Your task to perform on an android device: Set the phone to "Do not disturb". Image 0: 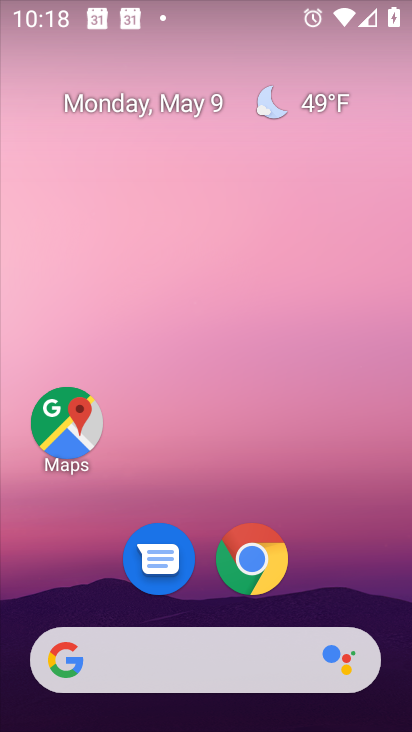
Step 0: drag from (197, 715) to (205, 185)
Your task to perform on an android device: Set the phone to "Do not disturb". Image 1: 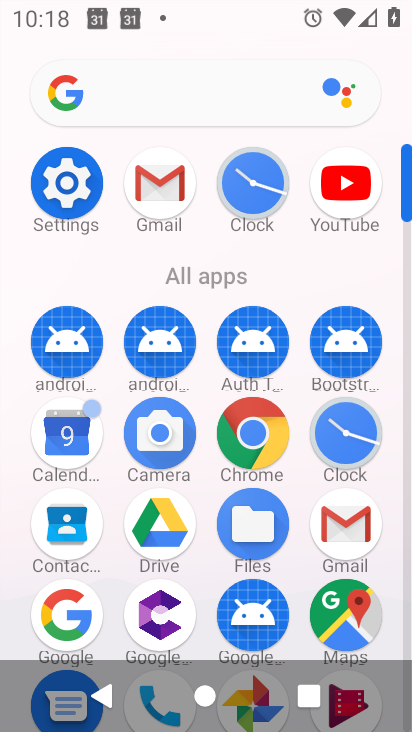
Step 1: click (79, 184)
Your task to perform on an android device: Set the phone to "Do not disturb". Image 2: 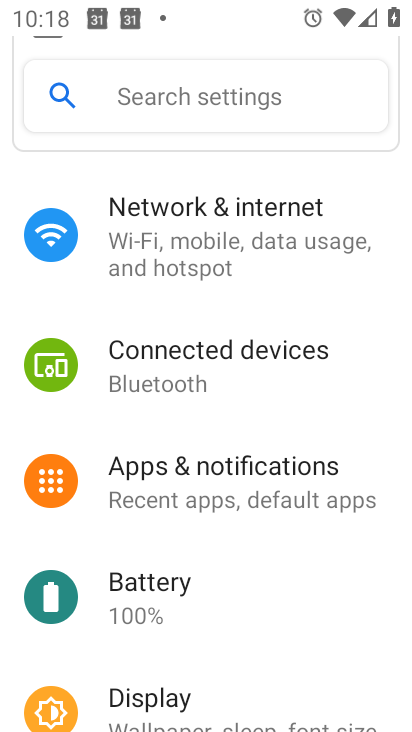
Step 2: drag from (205, 647) to (201, 214)
Your task to perform on an android device: Set the phone to "Do not disturb". Image 3: 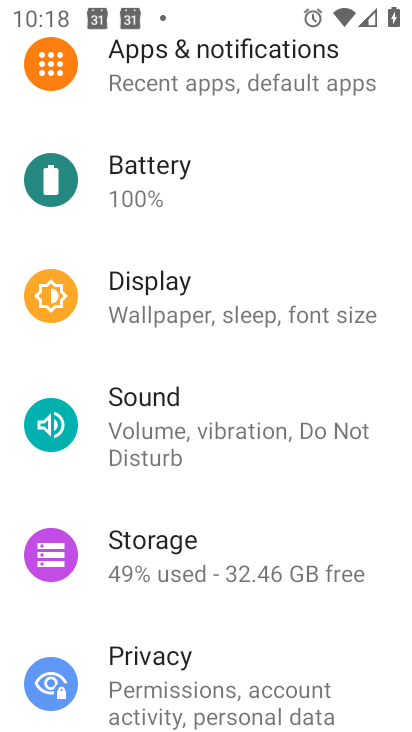
Step 3: click (225, 424)
Your task to perform on an android device: Set the phone to "Do not disturb". Image 4: 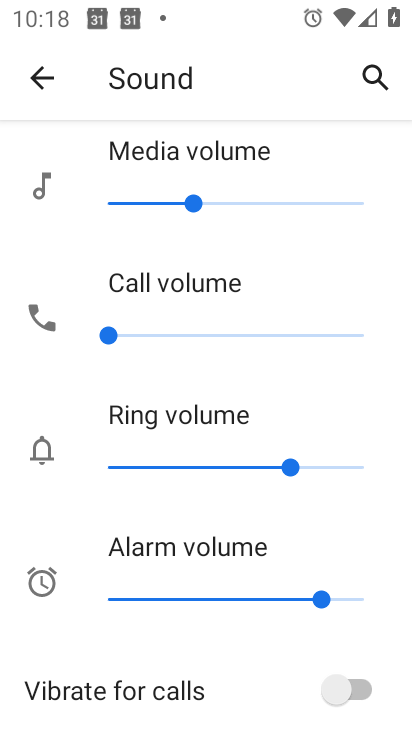
Step 4: drag from (215, 680) to (215, 345)
Your task to perform on an android device: Set the phone to "Do not disturb". Image 5: 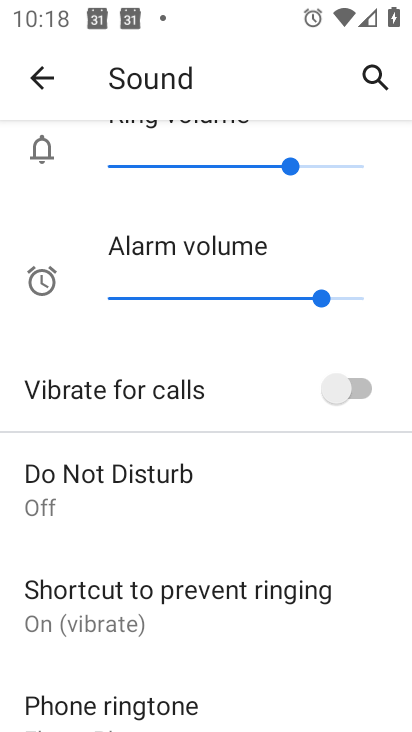
Step 5: click (100, 474)
Your task to perform on an android device: Set the phone to "Do not disturb". Image 6: 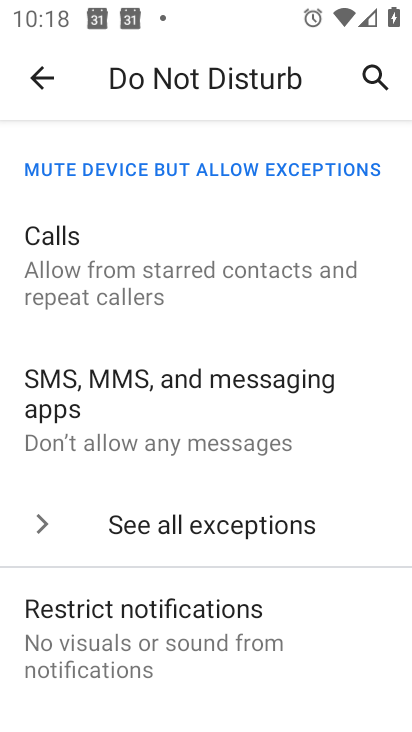
Step 6: drag from (165, 689) to (162, 364)
Your task to perform on an android device: Set the phone to "Do not disturb". Image 7: 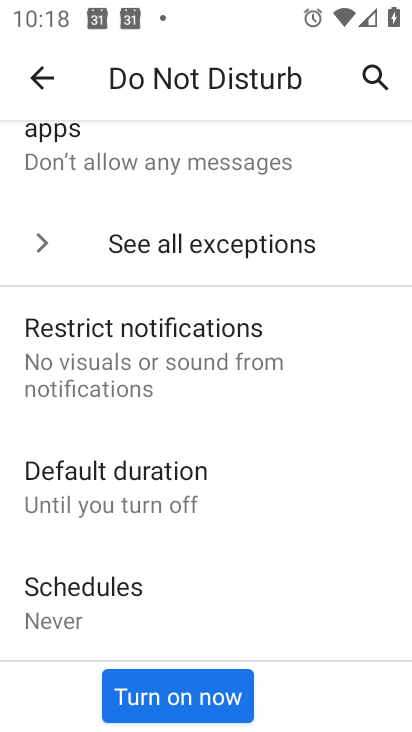
Step 7: click (166, 696)
Your task to perform on an android device: Set the phone to "Do not disturb". Image 8: 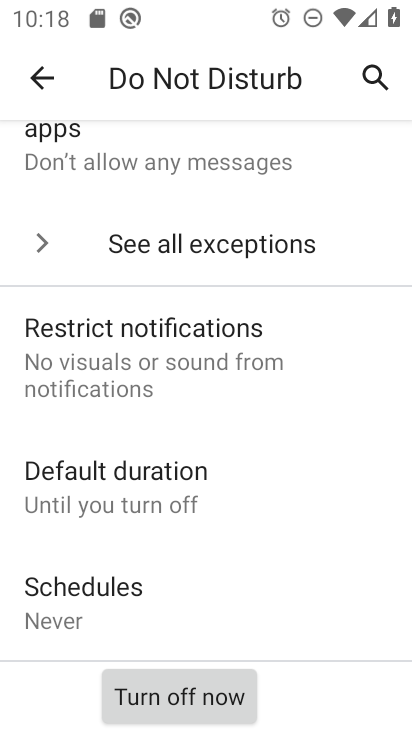
Step 8: task complete